Your task to perform on an android device: check battery use Image 0: 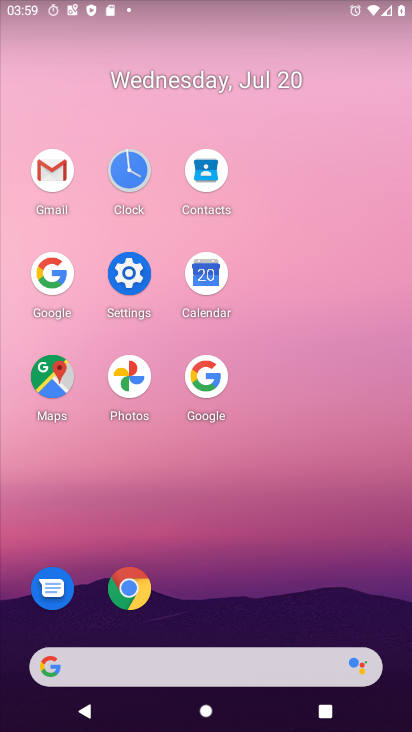
Step 0: click (141, 281)
Your task to perform on an android device: check battery use Image 1: 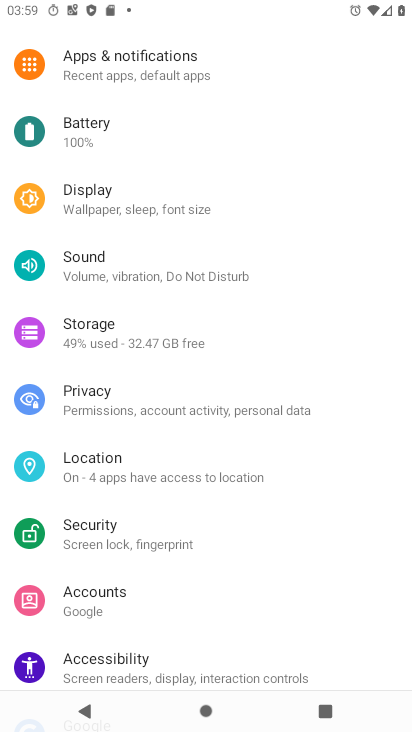
Step 1: click (160, 124)
Your task to perform on an android device: check battery use Image 2: 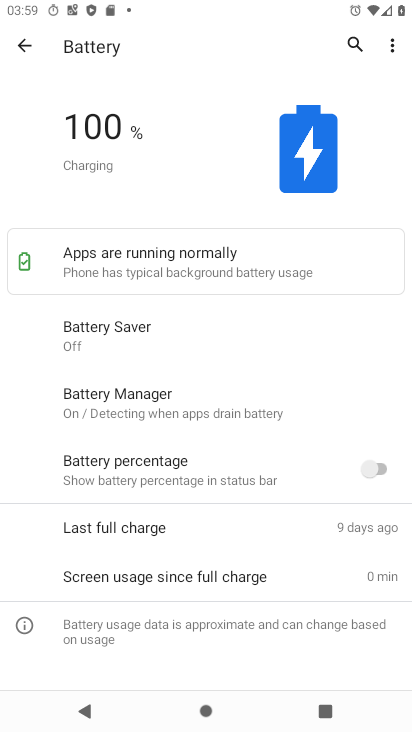
Step 2: click (393, 48)
Your task to perform on an android device: check battery use Image 3: 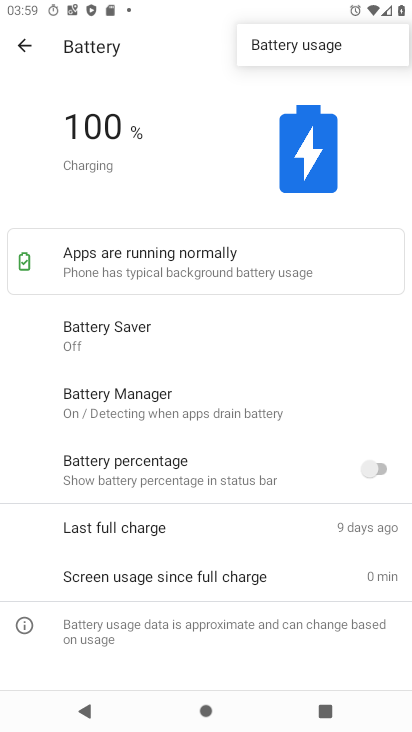
Step 3: click (335, 52)
Your task to perform on an android device: check battery use Image 4: 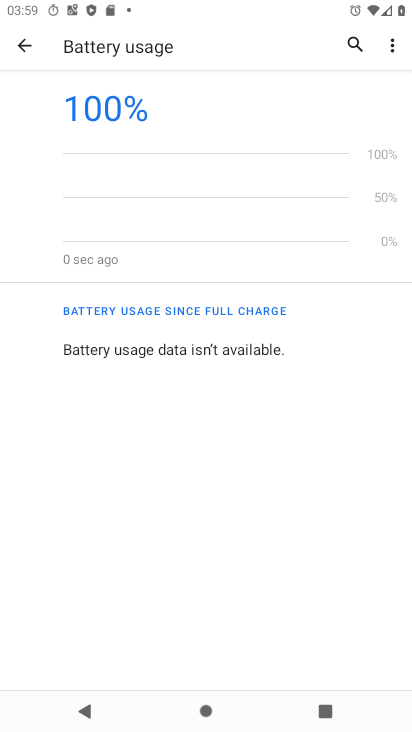
Step 4: task complete